Your task to perform on an android device: Go to settings Image 0: 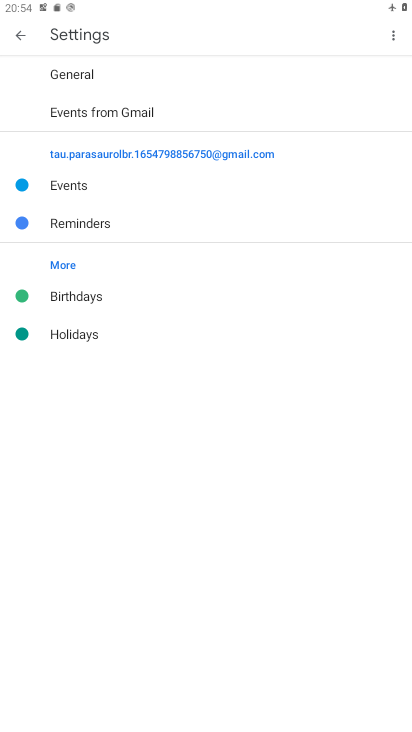
Step 0: click (16, 34)
Your task to perform on an android device: Go to settings Image 1: 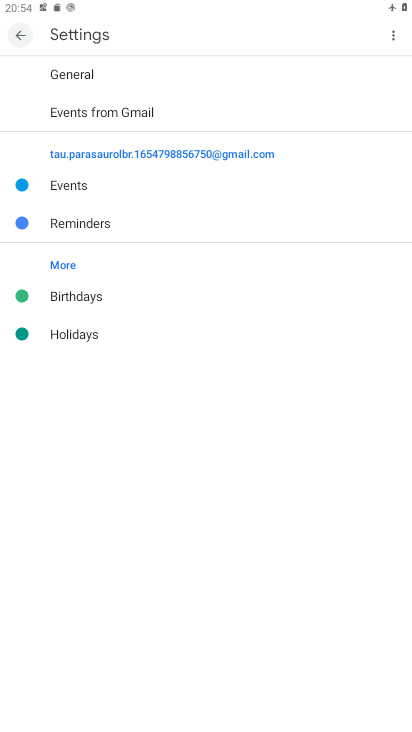
Step 1: click (12, 33)
Your task to perform on an android device: Go to settings Image 2: 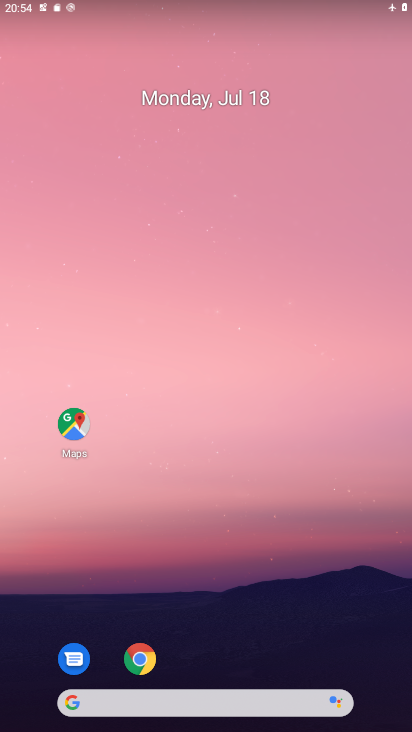
Step 2: drag from (199, 521) to (241, 3)
Your task to perform on an android device: Go to settings Image 3: 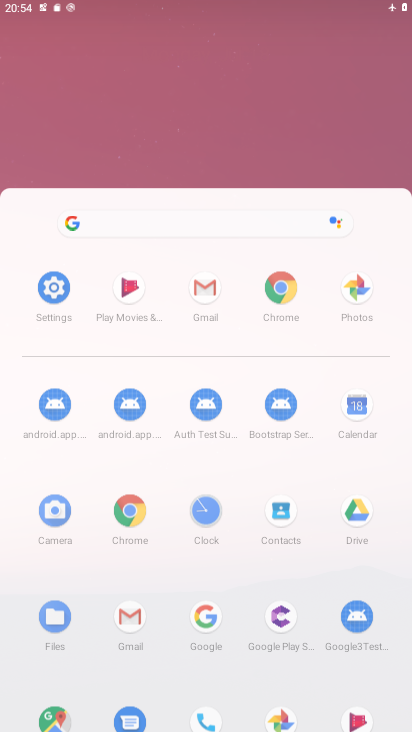
Step 3: drag from (191, 486) to (170, 83)
Your task to perform on an android device: Go to settings Image 4: 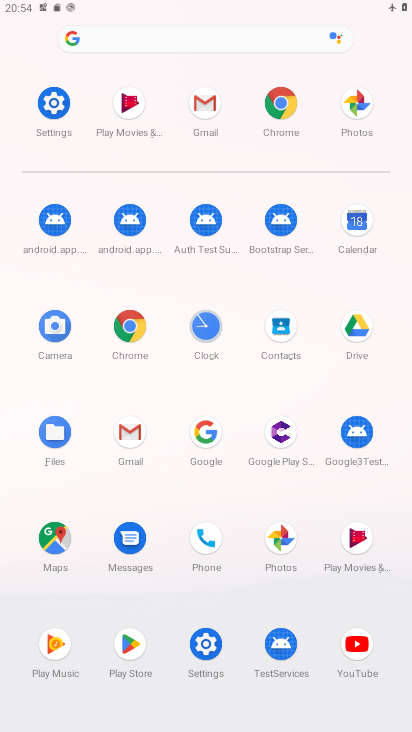
Step 4: click (59, 99)
Your task to perform on an android device: Go to settings Image 5: 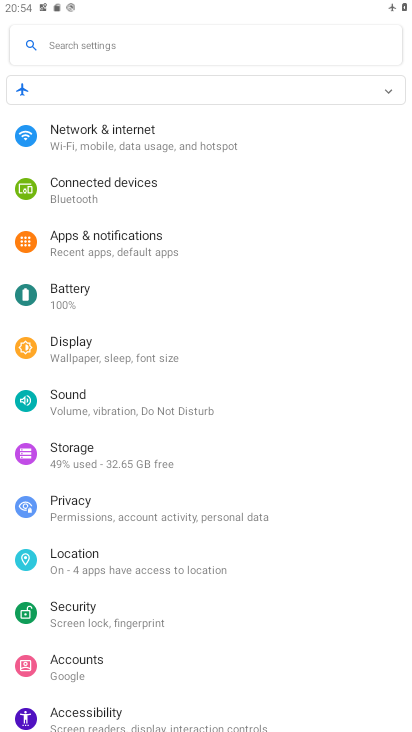
Step 5: task complete